Your task to perform on an android device: Check the weather Image 0: 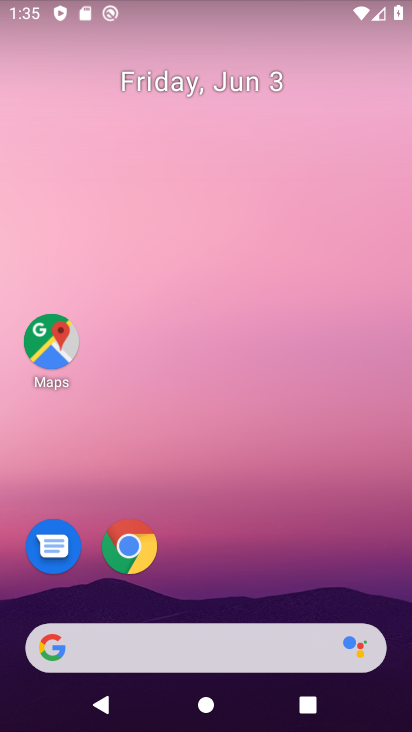
Step 0: press back button
Your task to perform on an android device: Check the weather Image 1: 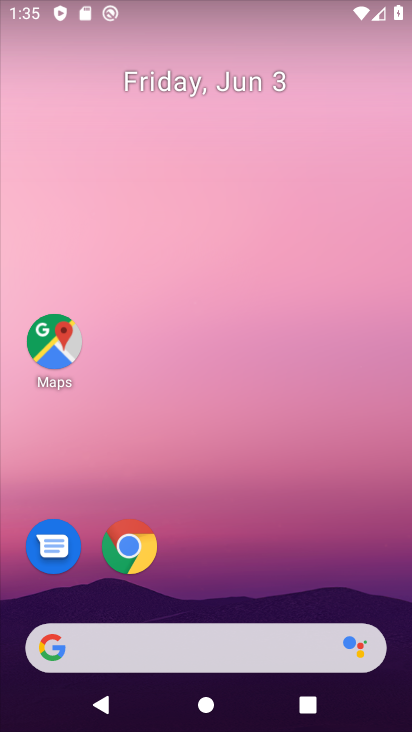
Step 1: click (175, 641)
Your task to perform on an android device: Check the weather Image 2: 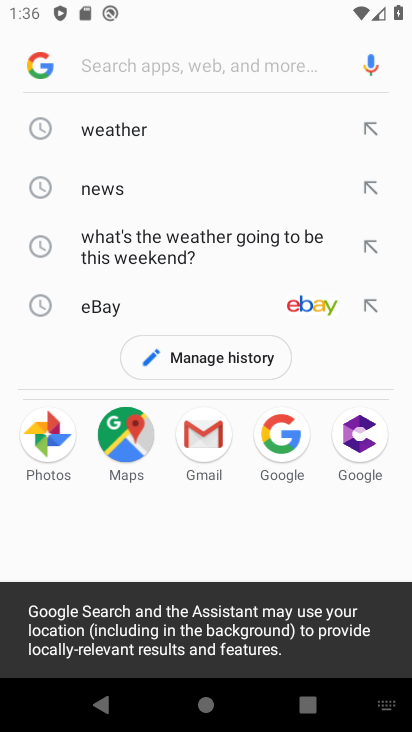
Step 2: click (114, 136)
Your task to perform on an android device: Check the weather Image 3: 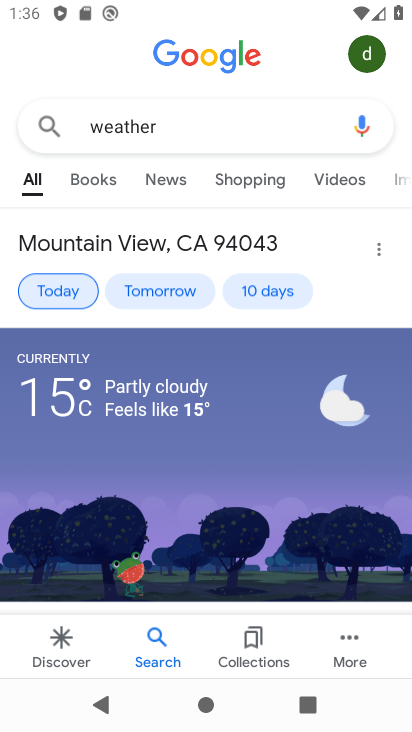
Step 3: task complete